Your task to perform on an android device: manage bookmarks in the chrome app Image 0: 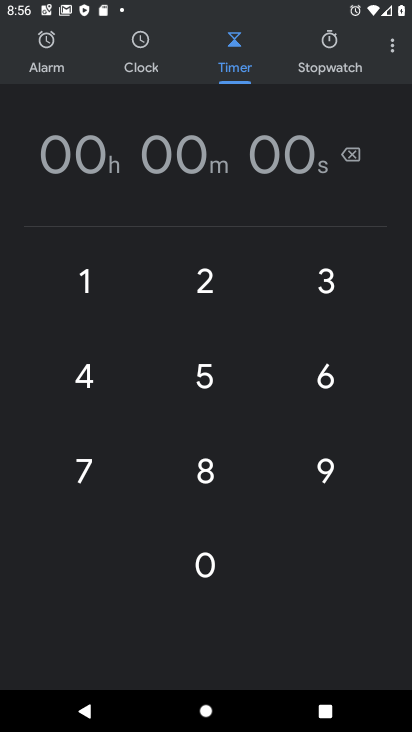
Step 0: press home button
Your task to perform on an android device: manage bookmarks in the chrome app Image 1: 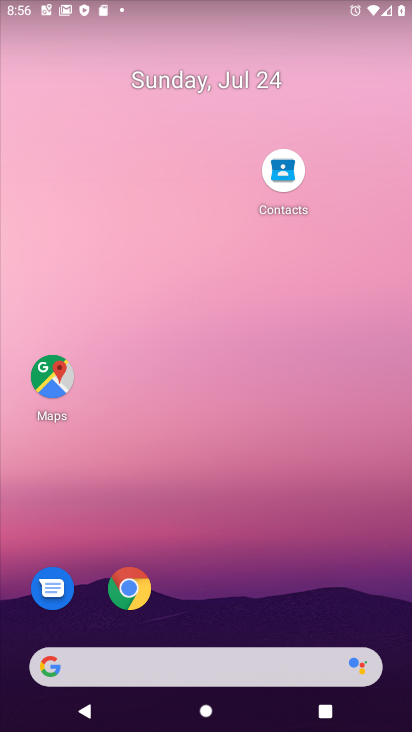
Step 1: click (126, 582)
Your task to perform on an android device: manage bookmarks in the chrome app Image 2: 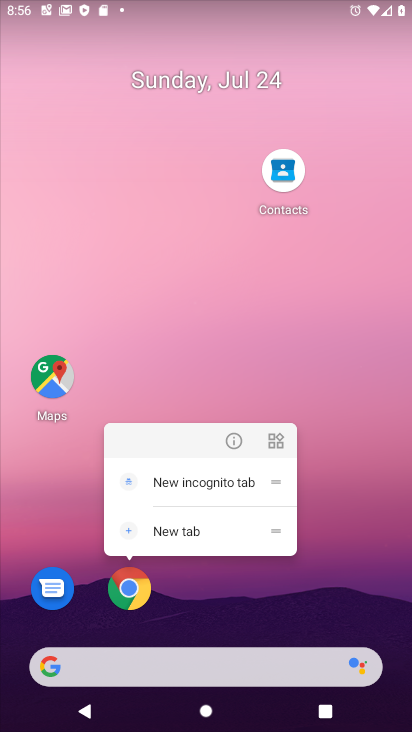
Step 2: click (128, 583)
Your task to perform on an android device: manage bookmarks in the chrome app Image 3: 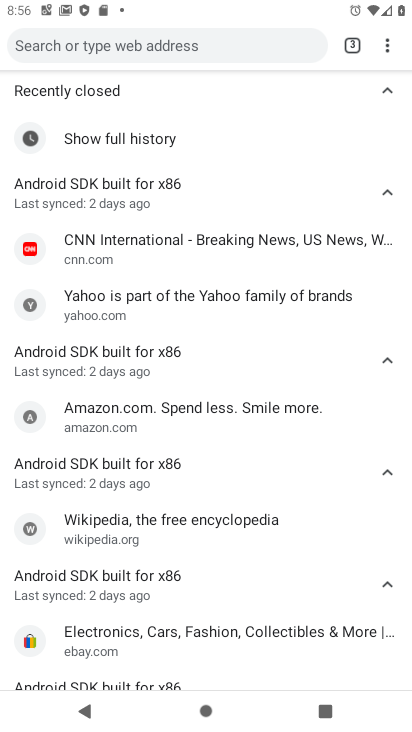
Step 3: click (389, 44)
Your task to perform on an android device: manage bookmarks in the chrome app Image 4: 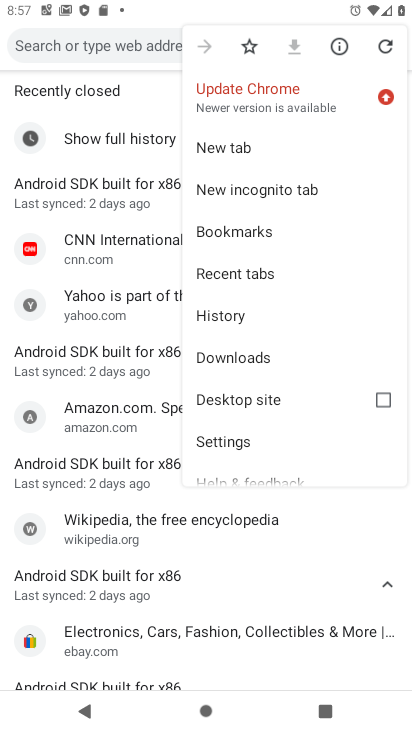
Step 4: click (275, 225)
Your task to perform on an android device: manage bookmarks in the chrome app Image 5: 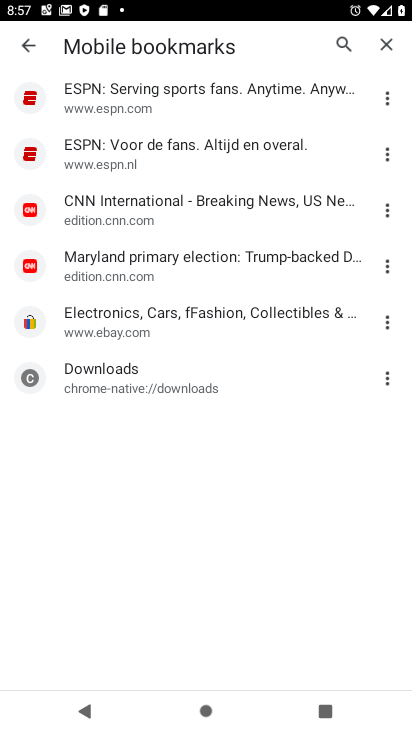
Step 5: click (393, 385)
Your task to perform on an android device: manage bookmarks in the chrome app Image 6: 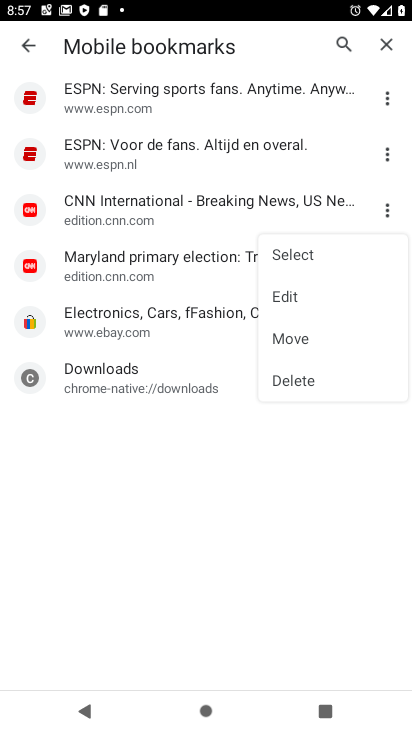
Step 6: click (329, 373)
Your task to perform on an android device: manage bookmarks in the chrome app Image 7: 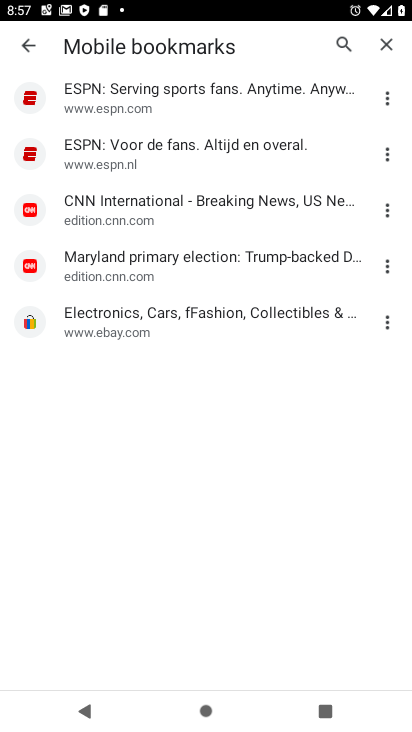
Step 7: task complete